Your task to perform on an android device: Open Google Chrome Image 0: 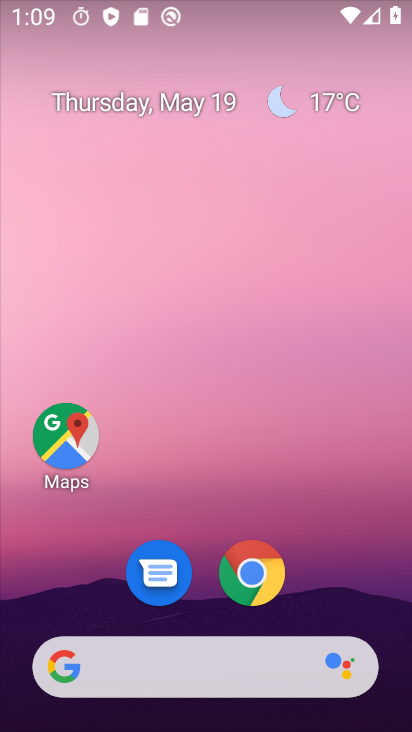
Step 0: click (262, 573)
Your task to perform on an android device: Open Google Chrome Image 1: 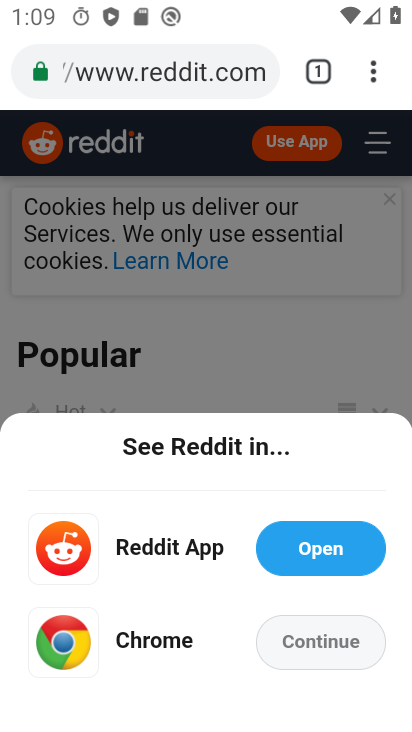
Step 1: task complete